Your task to perform on an android device: open device folders in google photos Image 0: 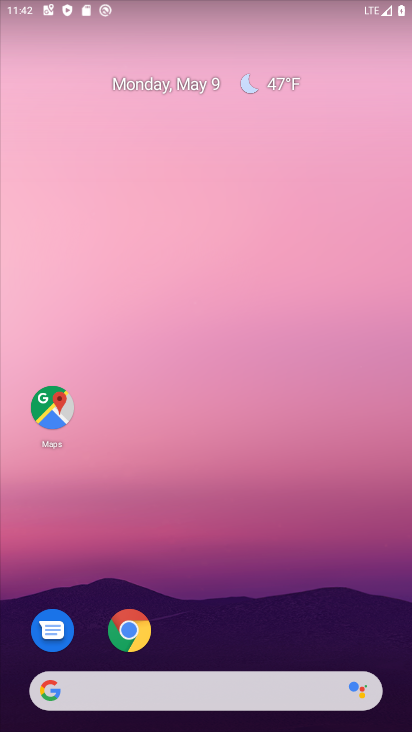
Step 0: press home button
Your task to perform on an android device: open device folders in google photos Image 1: 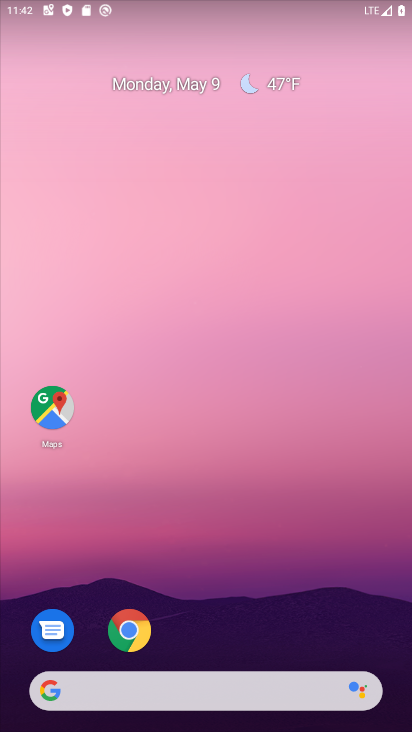
Step 1: drag from (166, 673) to (271, 270)
Your task to perform on an android device: open device folders in google photos Image 2: 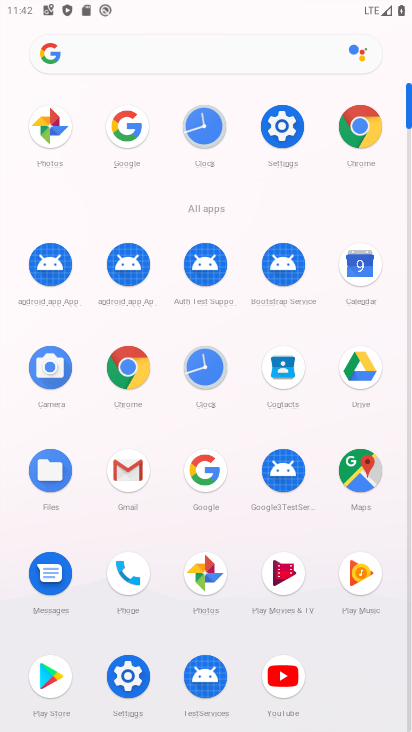
Step 2: click (212, 583)
Your task to perform on an android device: open device folders in google photos Image 3: 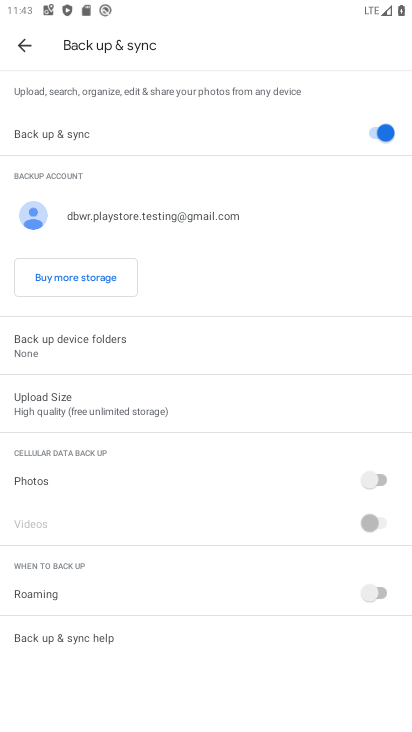
Step 3: click (21, 46)
Your task to perform on an android device: open device folders in google photos Image 4: 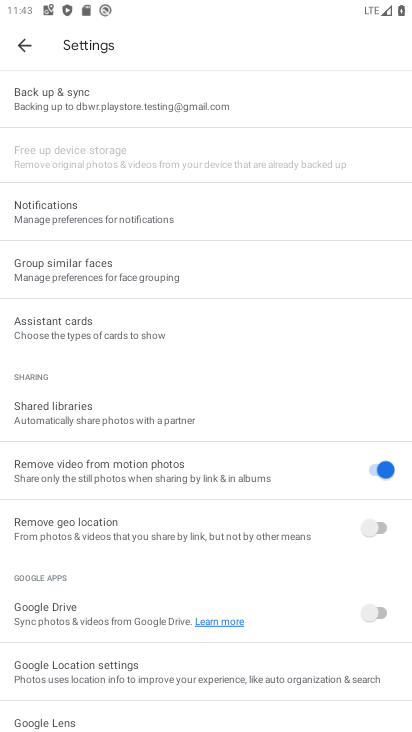
Step 4: click (21, 46)
Your task to perform on an android device: open device folders in google photos Image 5: 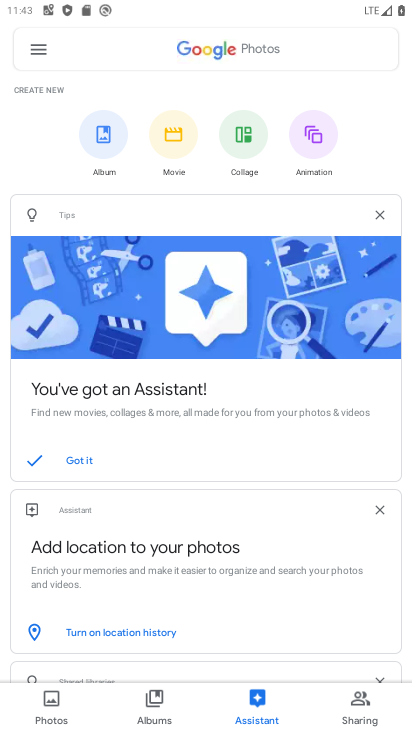
Step 5: click (39, 46)
Your task to perform on an android device: open device folders in google photos Image 6: 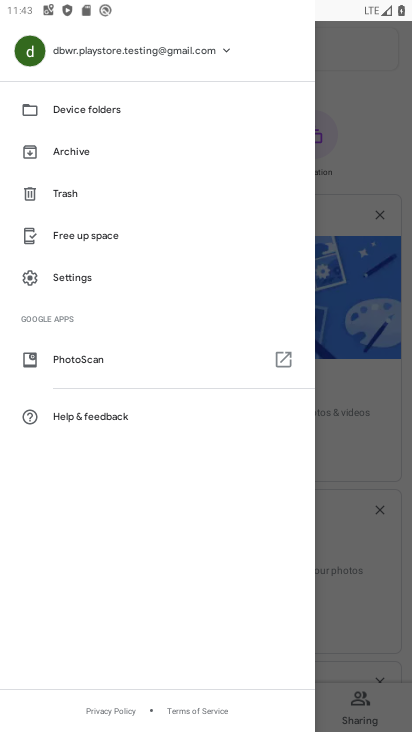
Step 6: click (58, 108)
Your task to perform on an android device: open device folders in google photos Image 7: 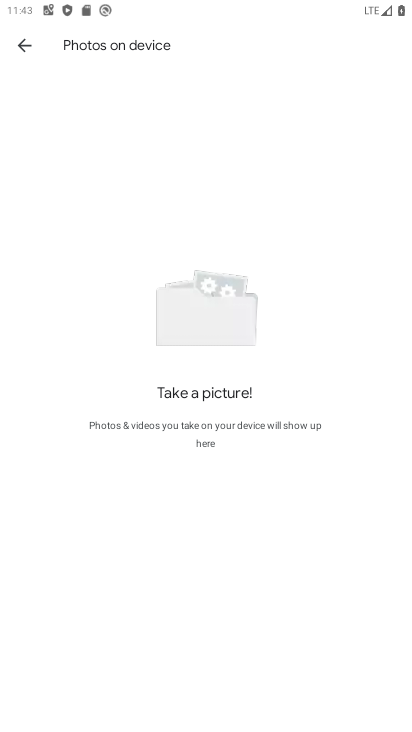
Step 7: task complete